Your task to perform on an android device: Open CNN.com Image 0: 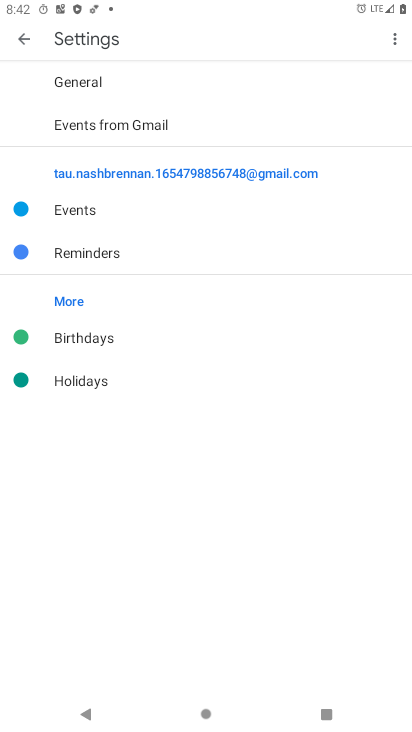
Step 0: press home button
Your task to perform on an android device: Open CNN.com Image 1: 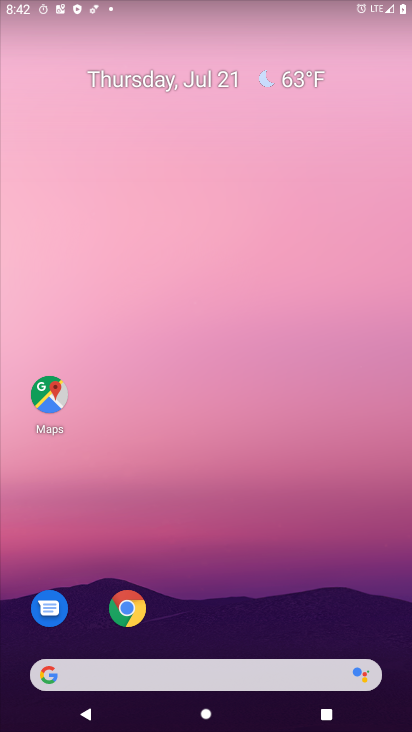
Step 1: click (130, 607)
Your task to perform on an android device: Open CNN.com Image 2: 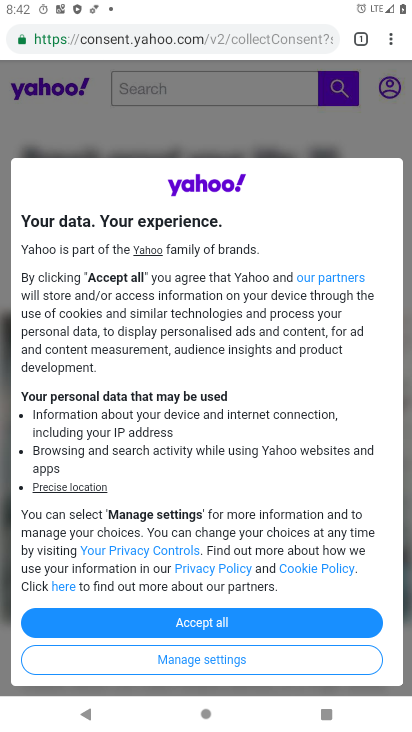
Step 2: click (324, 39)
Your task to perform on an android device: Open CNN.com Image 3: 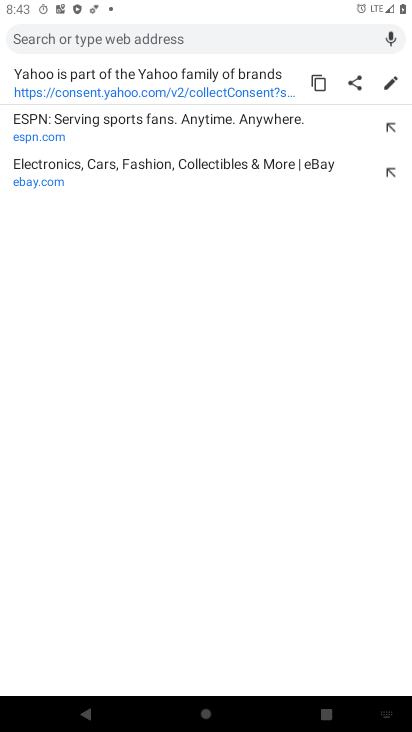
Step 3: type "CNN.com"
Your task to perform on an android device: Open CNN.com Image 4: 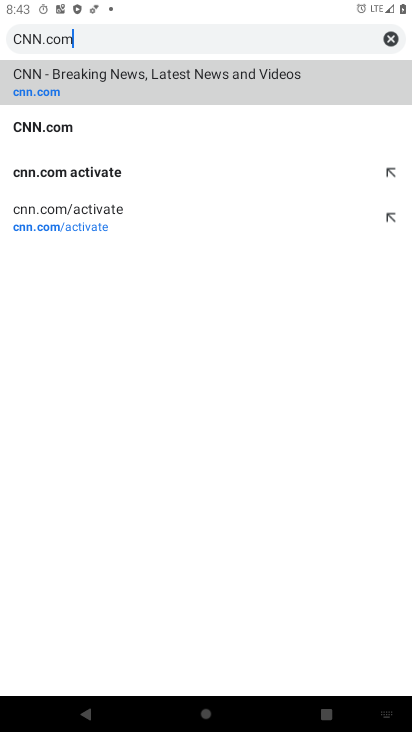
Step 4: type ""
Your task to perform on an android device: Open CNN.com Image 5: 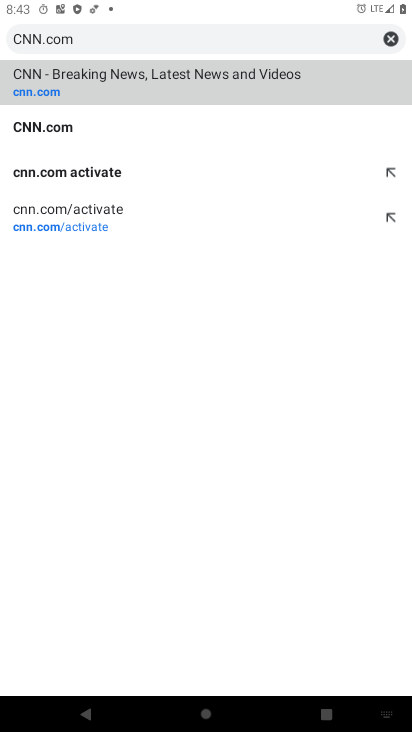
Step 5: click (271, 81)
Your task to perform on an android device: Open CNN.com Image 6: 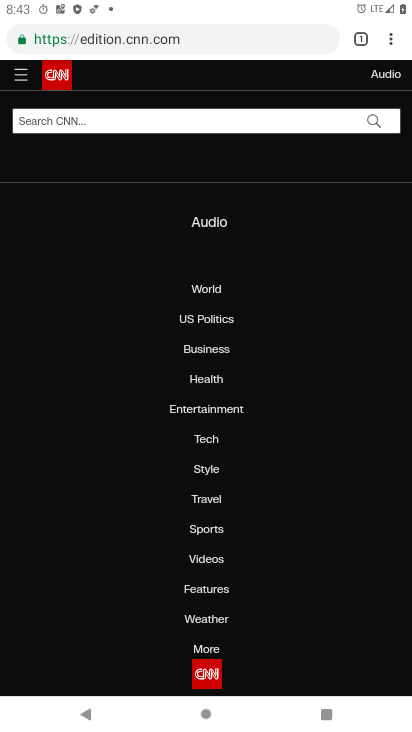
Step 6: task complete